Your task to perform on an android device: Open network settings Image 0: 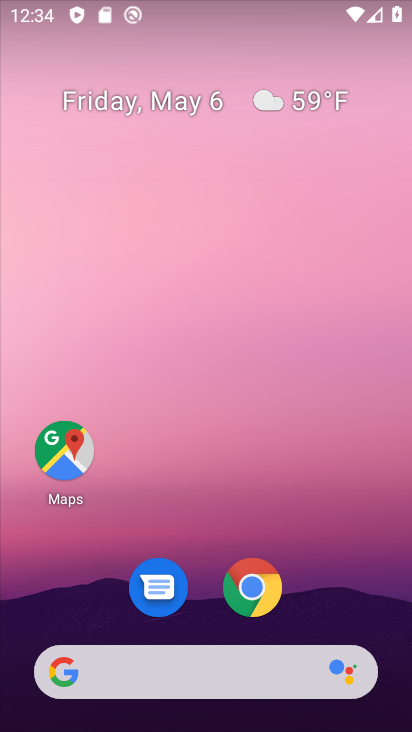
Step 0: drag from (218, 660) to (239, 143)
Your task to perform on an android device: Open network settings Image 1: 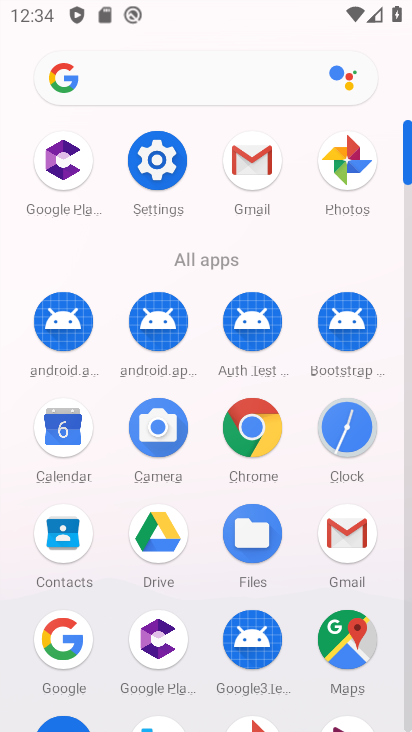
Step 1: drag from (290, 466) to (244, 144)
Your task to perform on an android device: Open network settings Image 2: 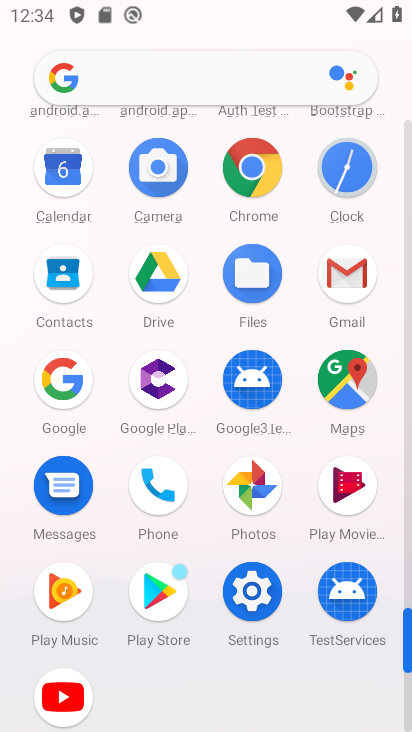
Step 2: click (250, 609)
Your task to perform on an android device: Open network settings Image 3: 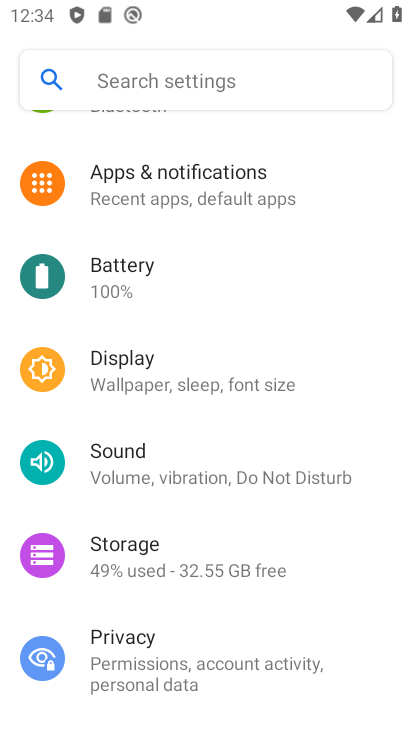
Step 3: drag from (204, 339) to (191, 618)
Your task to perform on an android device: Open network settings Image 4: 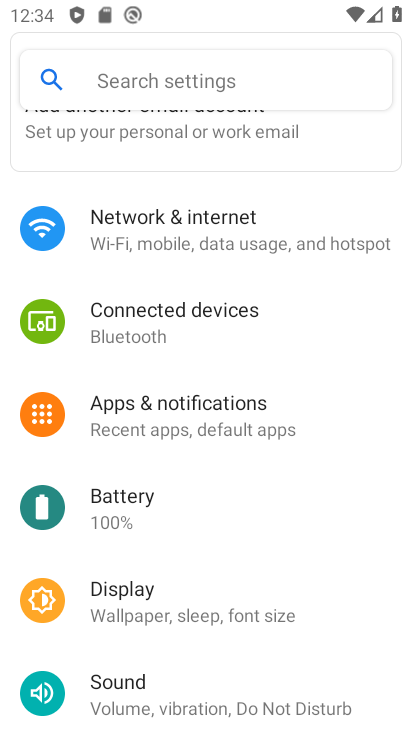
Step 4: click (196, 248)
Your task to perform on an android device: Open network settings Image 5: 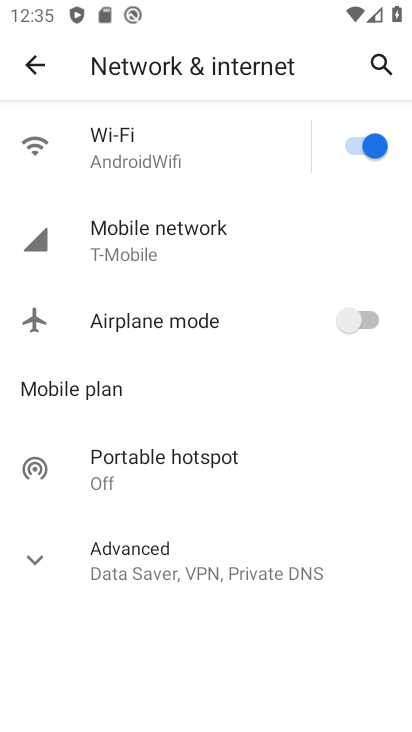
Step 5: click (148, 251)
Your task to perform on an android device: Open network settings Image 6: 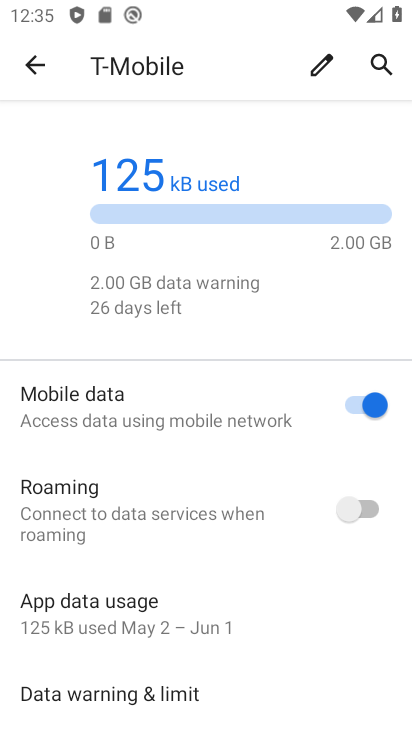
Step 6: task complete